Your task to perform on an android device: Open display settings Image 0: 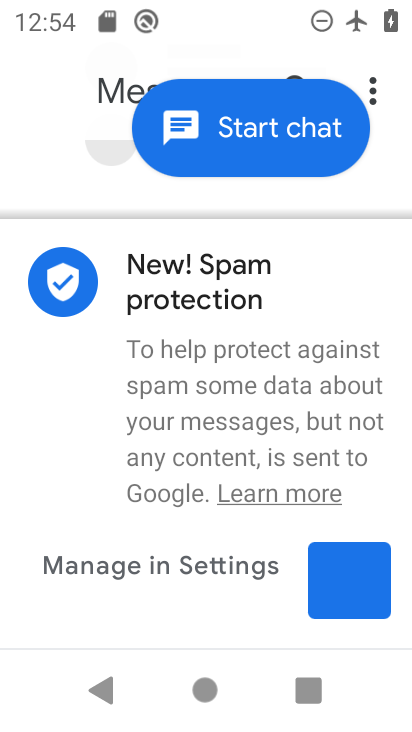
Step 0: press home button
Your task to perform on an android device: Open display settings Image 1: 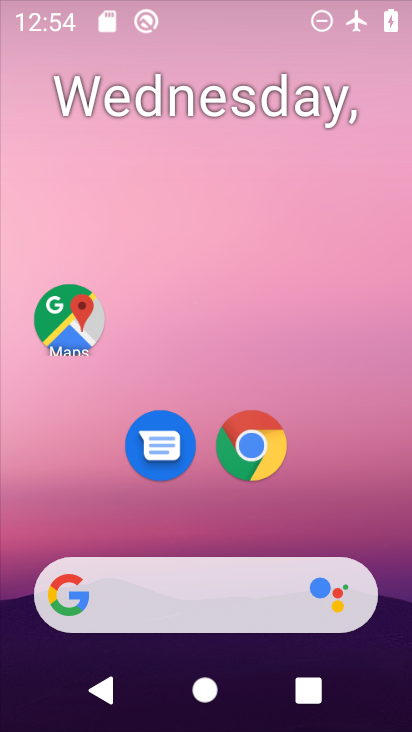
Step 1: drag from (381, 644) to (258, 41)
Your task to perform on an android device: Open display settings Image 2: 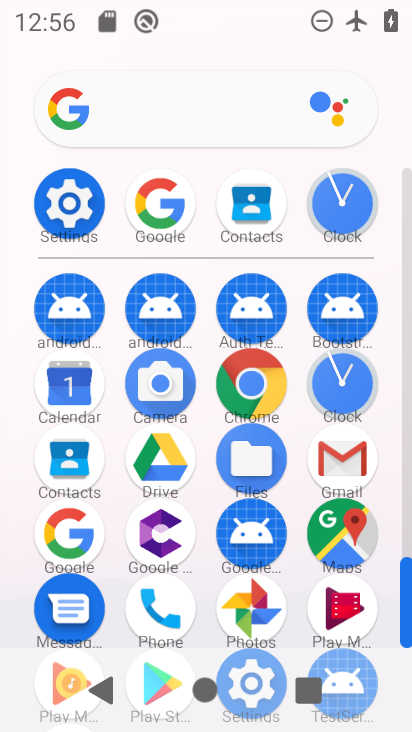
Step 2: click (69, 197)
Your task to perform on an android device: Open display settings Image 3: 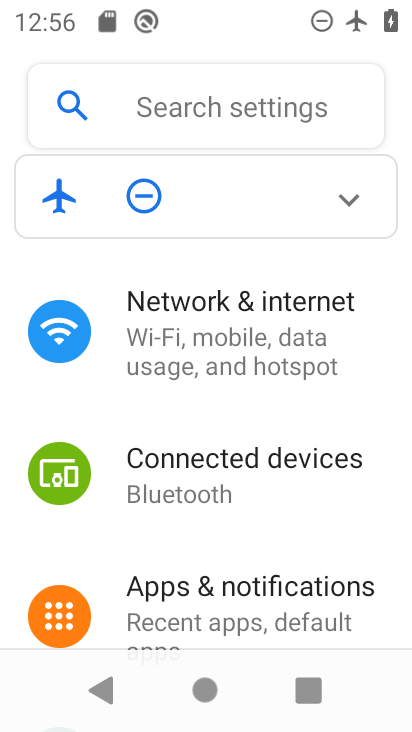
Step 3: drag from (194, 575) to (222, 79)
Your task to perform on an android device: Open display settings Image 4: 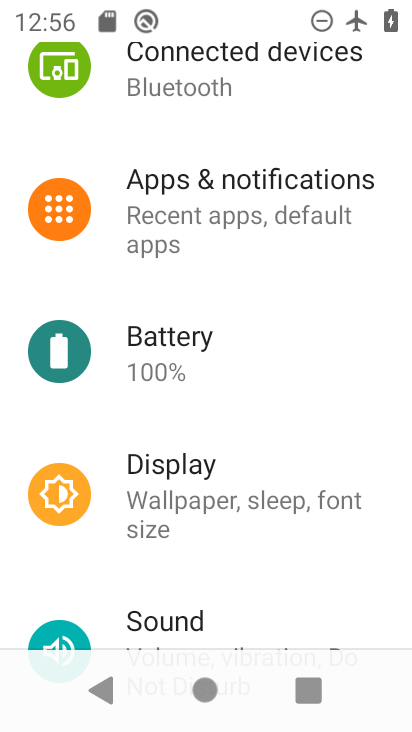
Step 4: click (209, 461)
Your task to perform on an android device: Open display settings Image 5: 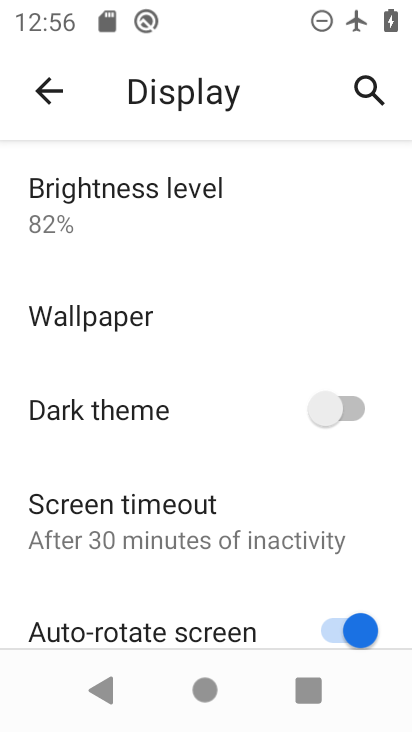
Step 5: task complete